Your task to perform on an android device: move an email to a new category in the gmail app Image 0: 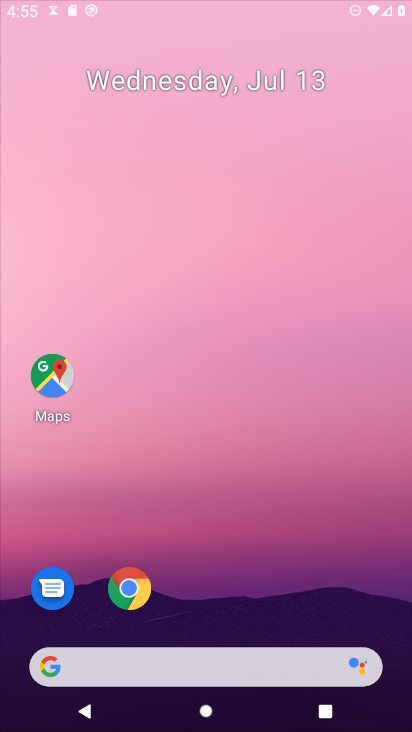
Step 0: drag from (266, 670) to (253, 199)
Your task to perform on an android device: move an email to a new category in the gmail app Image 1: 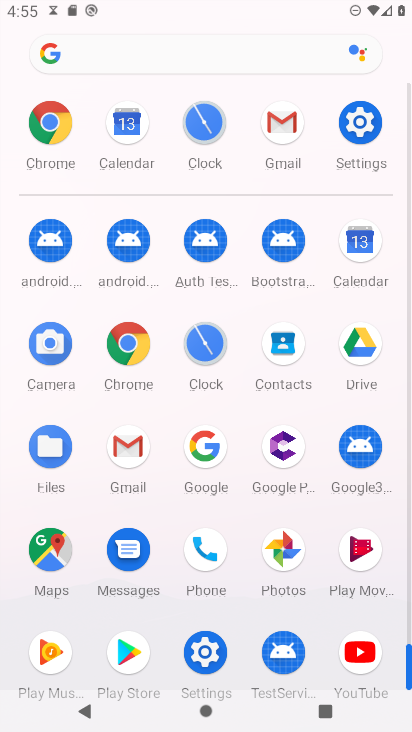
Step 1: click (127, 445)
Your task to perform on an android device: move an email to a new category in the gmail app Image 2: 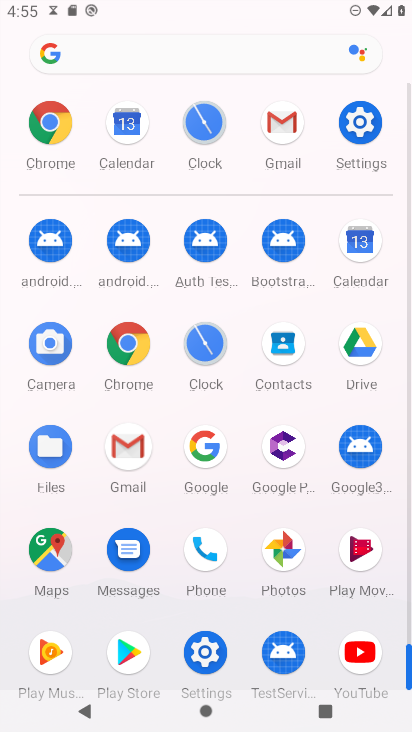
Step 2: click (129, 447)
Your task to perform on an android device: move an email to a new category in the gmail app Image 3: 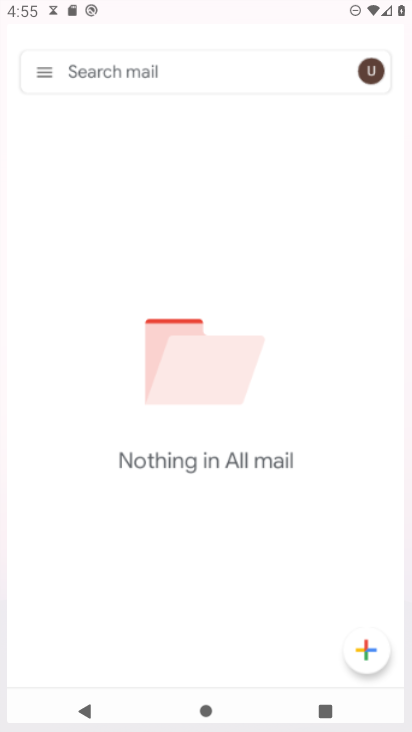
Step 3: click (129, 447)
Your task to perform on an android device: move an email to a new category in the gmail app Image 4: 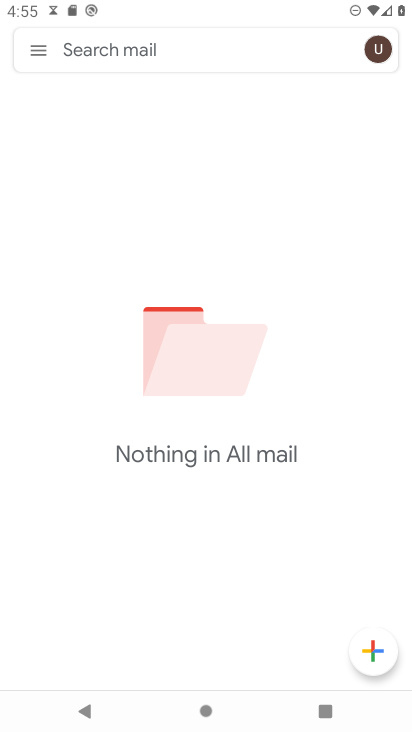
Step 4: click (31, 51)
Your task to perform on an android device: move an email to a new category in the gmail app Image 5: 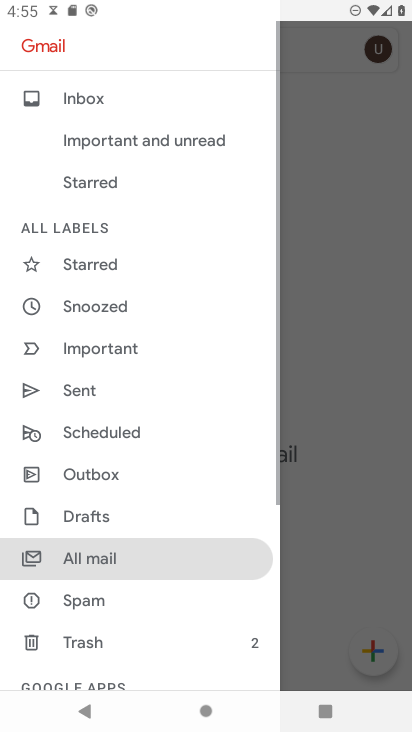
Step 5: click (81, 563)
Your task to perform on an android device: move an email to a new category in the gmail app Image 6: 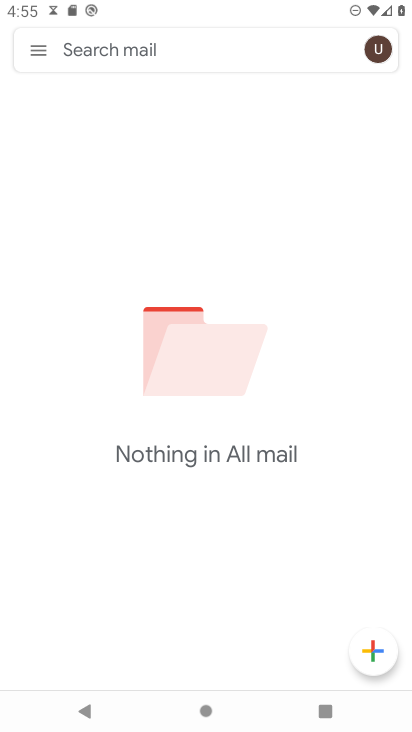
Step 6: task complete